Your task to perform on an android device: toggle location history Image 0: 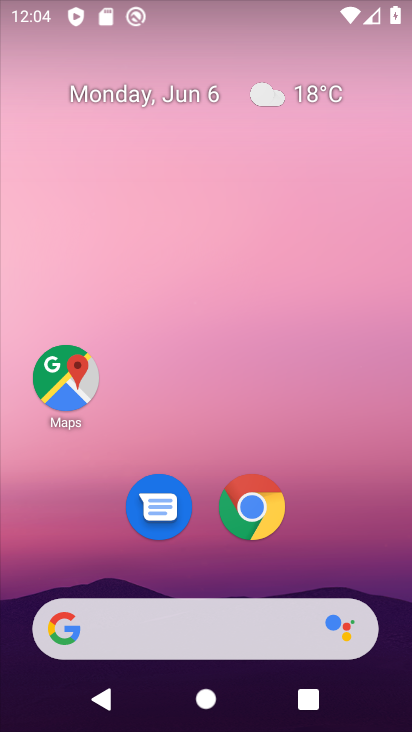
Step 0: drag from (209, 566) to (255, 108)
Your task to perform on an android device: toggle location history Image 1: 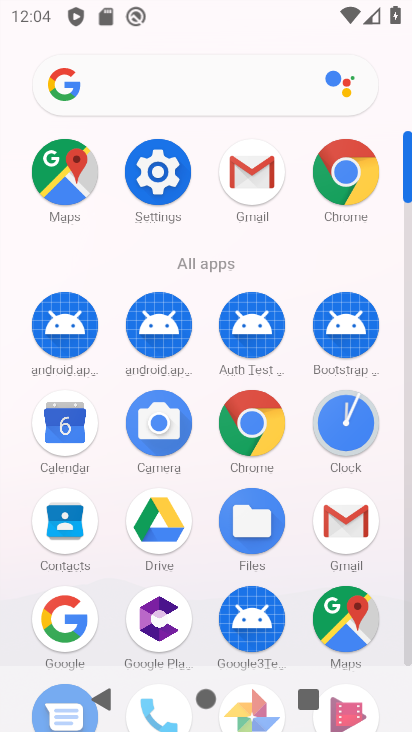
Step 1: click (173, 181)
Your task to perform on an android device: toggle location history Image 2: 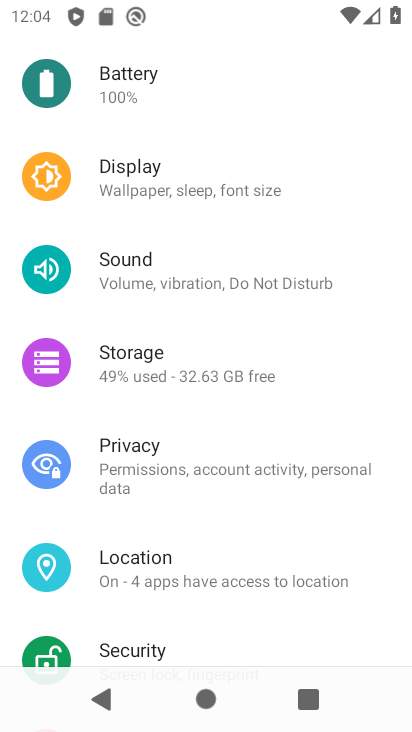
Step 2: click (134, 578)
Your task to perform on an android device: toggle location history Image 3: 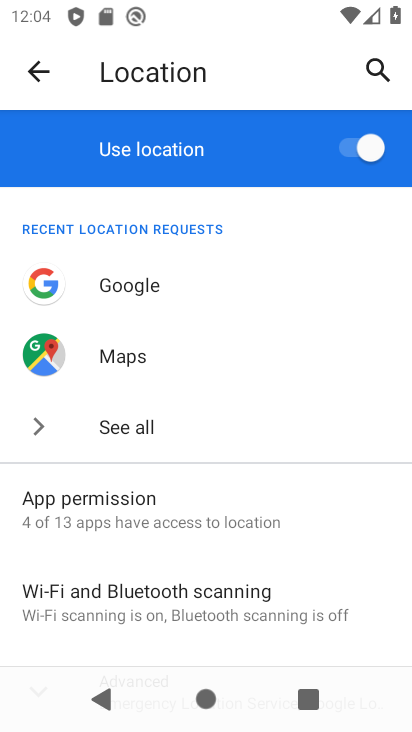
Step 3: drag from (205, 582) to (225, 208)
Your task to perform on an android device: toggle location history Image 4: 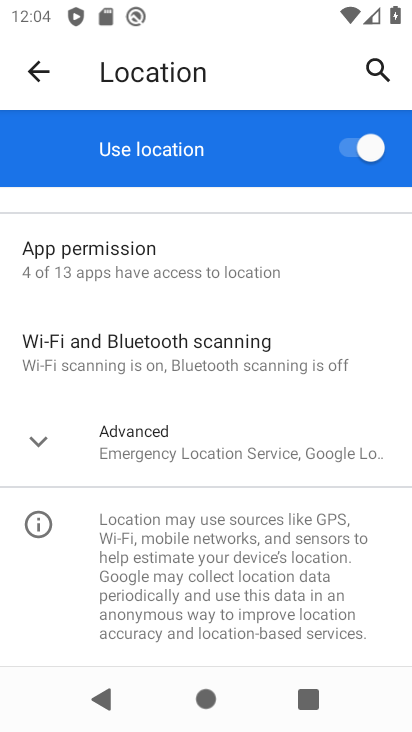
Step 4: click (172, 443)
Your task to perform on an android device: toggle location history Image 5: 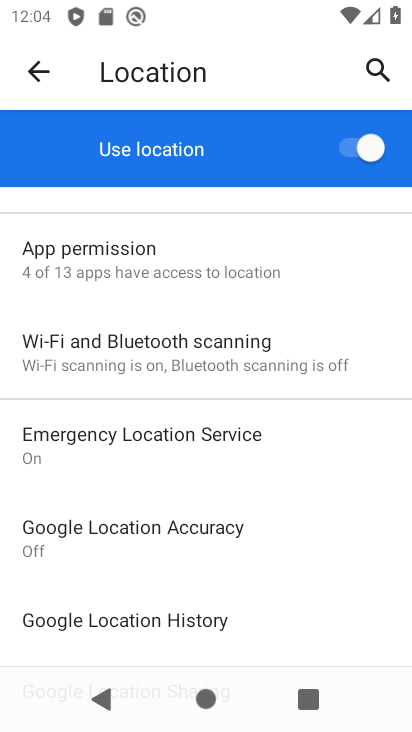
Step 5: click (175, 628)
Your task to perform on an android device: toggle location history Image 6: 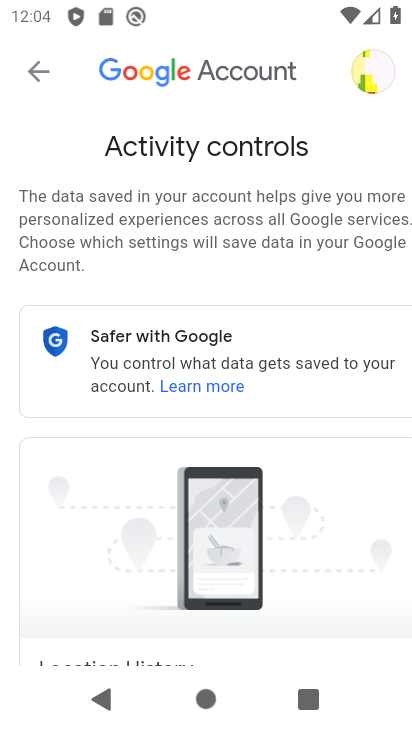
Step 6: drag from (152, 518) to (172, 199)
Your task to perform on an android device: toggle location history Image 7: 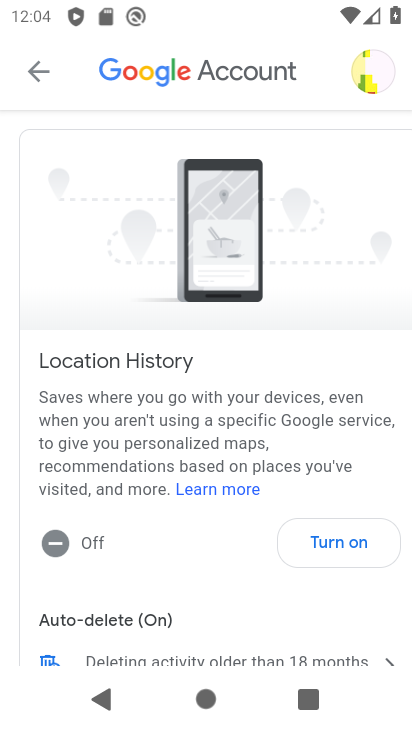
Step 7: drag from (162, 571) to (215, 250)
Your task to perform on an android device: toggle location history Image 8: 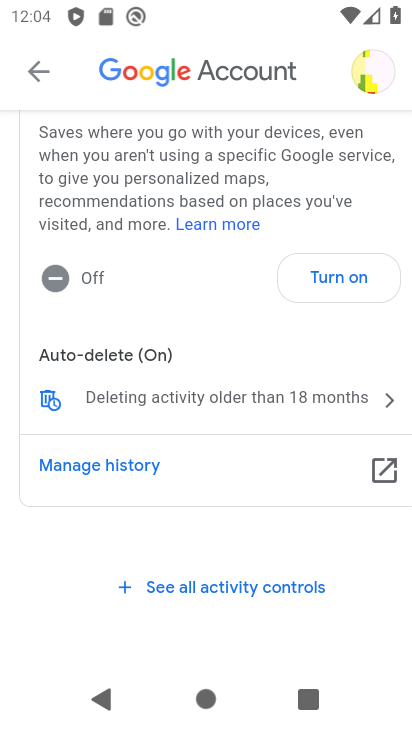
Step 8: click (332, 275)
Your task to perform on an android device: toggle location history Image 9: 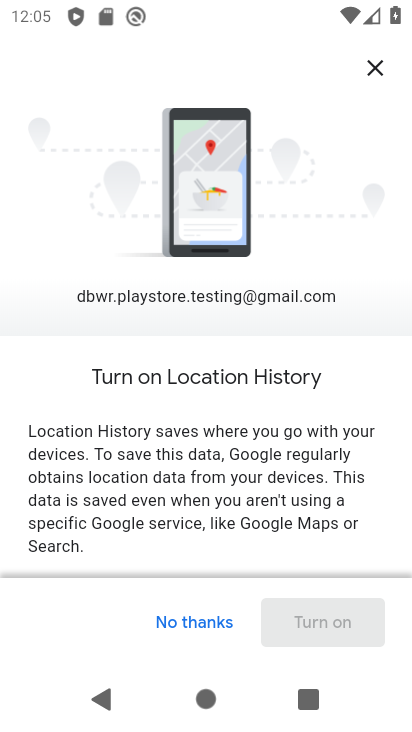
Step 9: drag from (234, 544) to (266, 265)
Your task to perform on an android device: toggle location history Image 10: 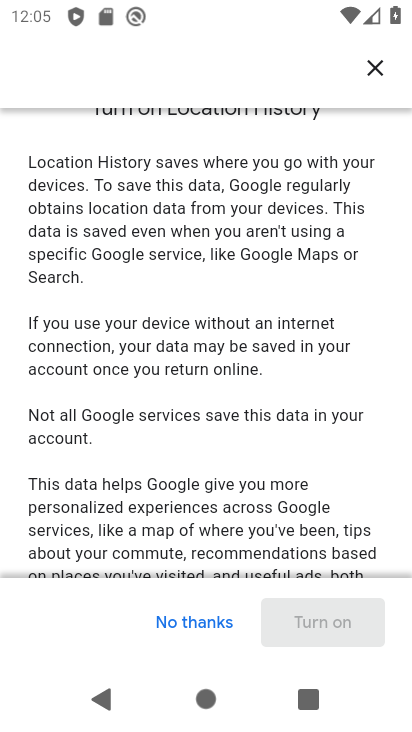
Step 10: drag from (233, 565) to (270, 229)
Your task to perform on an android device: toggle location history Image 11: 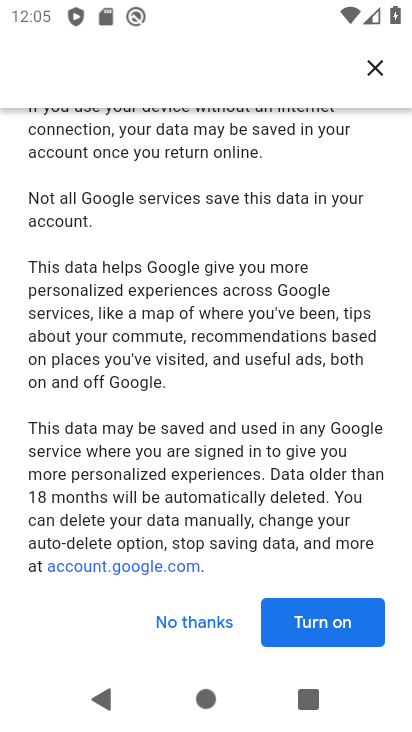
Step 11: click (318, 630)
Your task to perform on an android device: toggle location history Image 12: 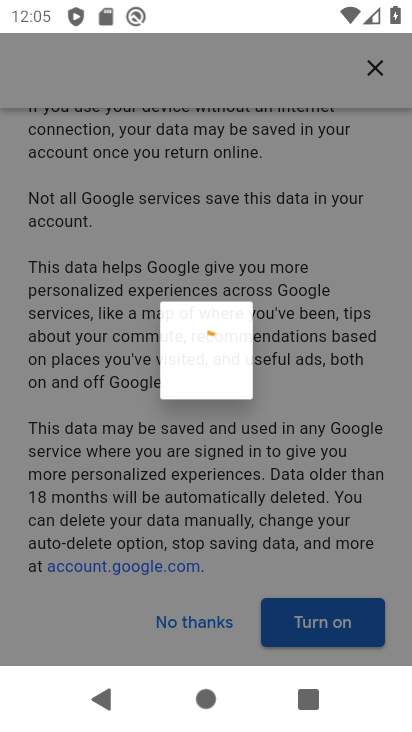
Step 12: click (320, 632)
Your task to perform on an android device: toggle location history Image 13: 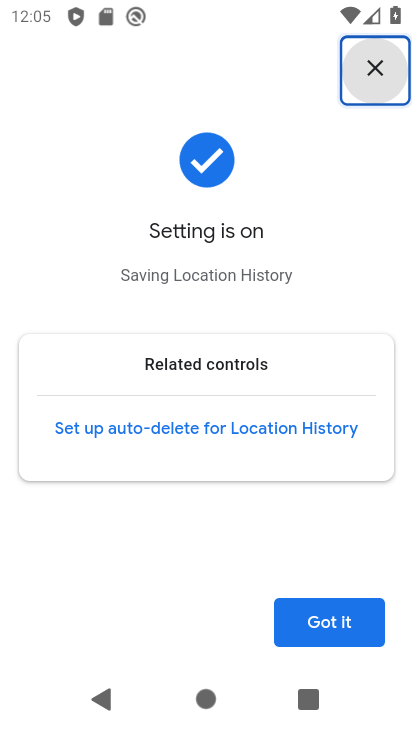
Step 13: click (324, 621)
Your task to perform on an android device: toggle location history Image 14: 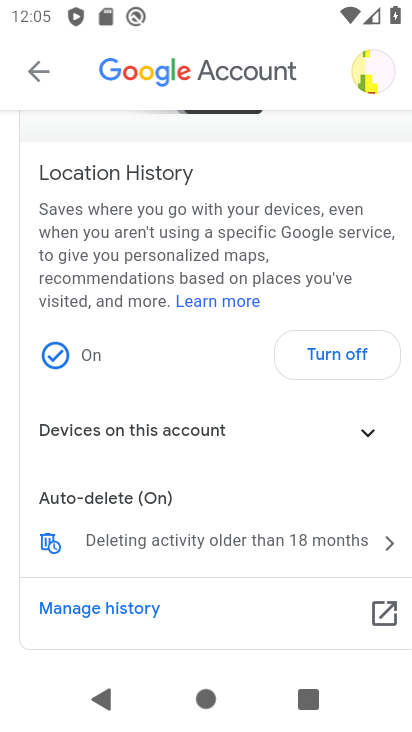
Step 14: task complete